Your task to perform on an android device: Show me the alarms in the clock app Image 0: 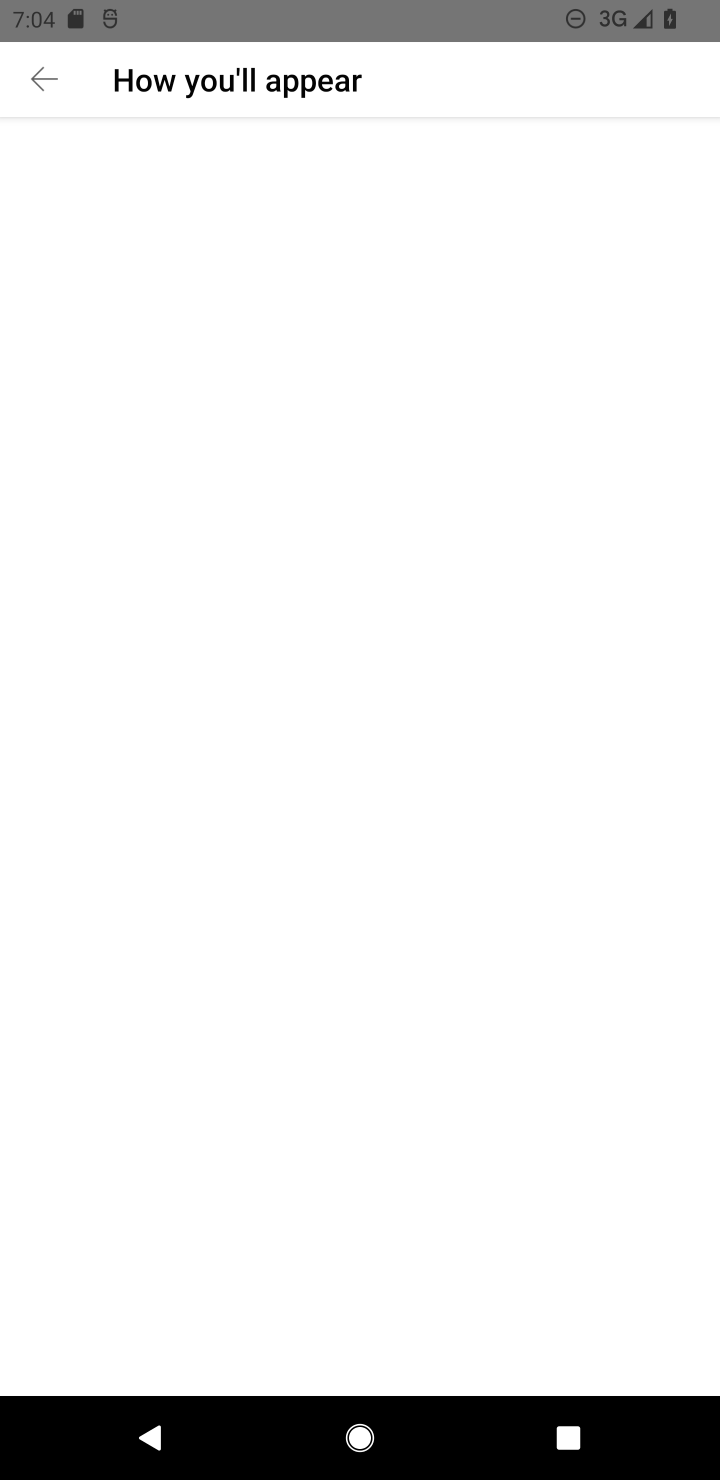
Step 0: press home button
Your task to perform on an android device: Show me the alarms in the clock app Image 1: 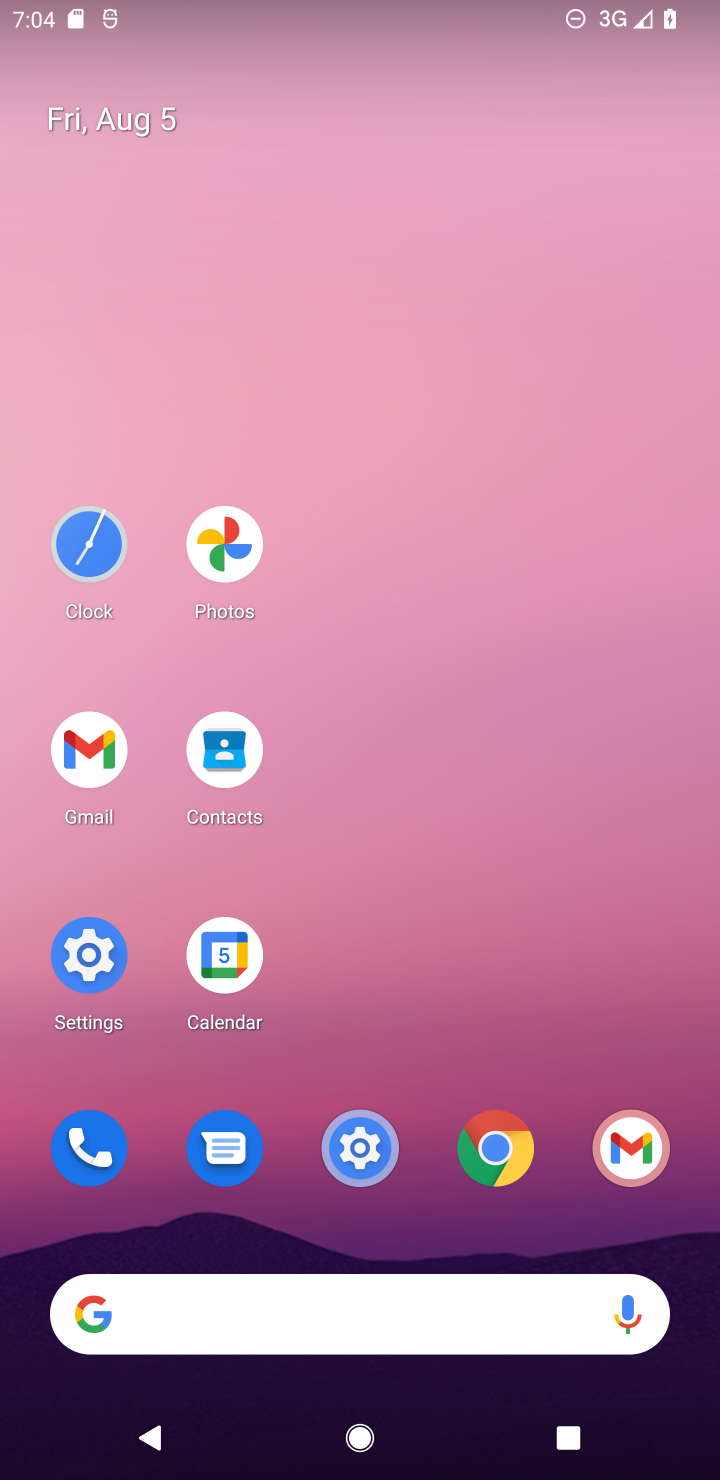
Step 1: click (50, 543)
Your task to perform on an android device: Show me the alarms in the clock app Image 2: 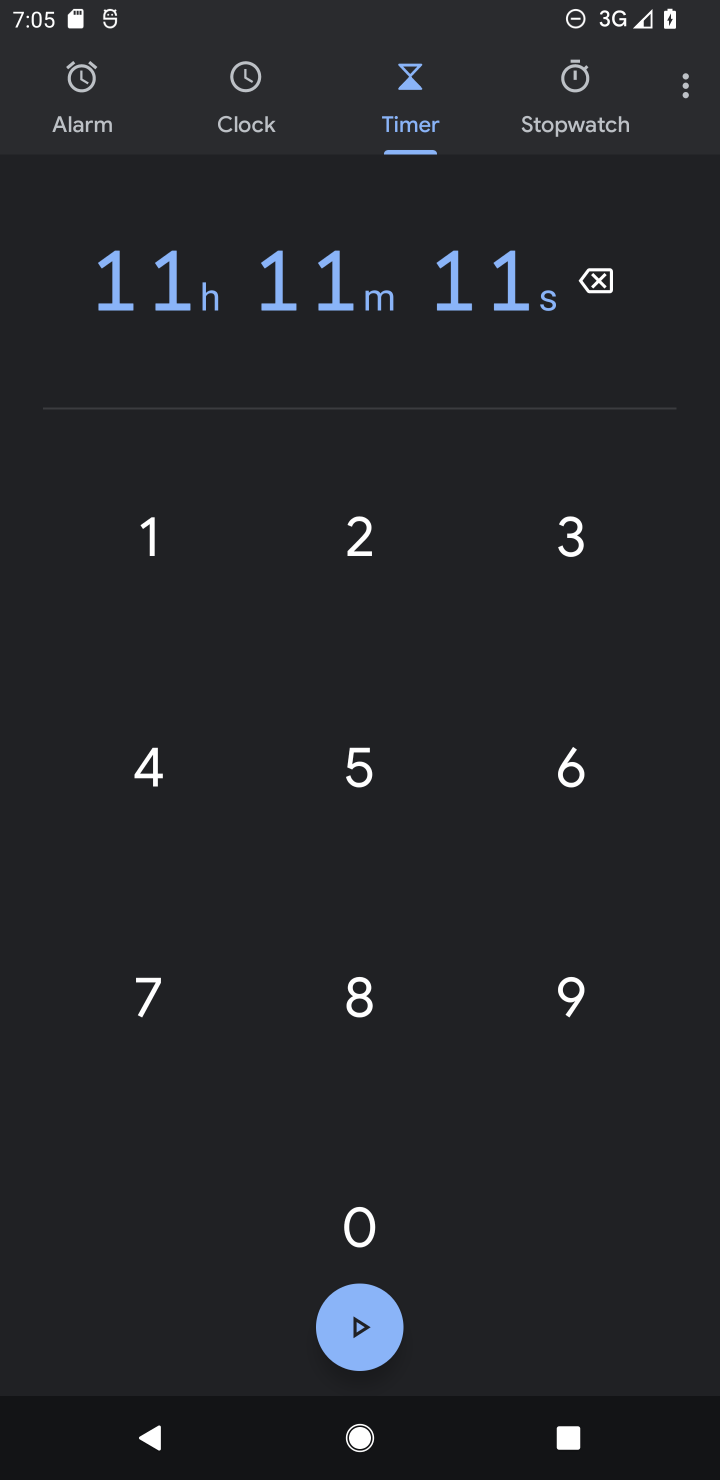
Step 2: click (82, 100)
Your task to perform on an android device: Show me the alarms in the clock app Image 3: 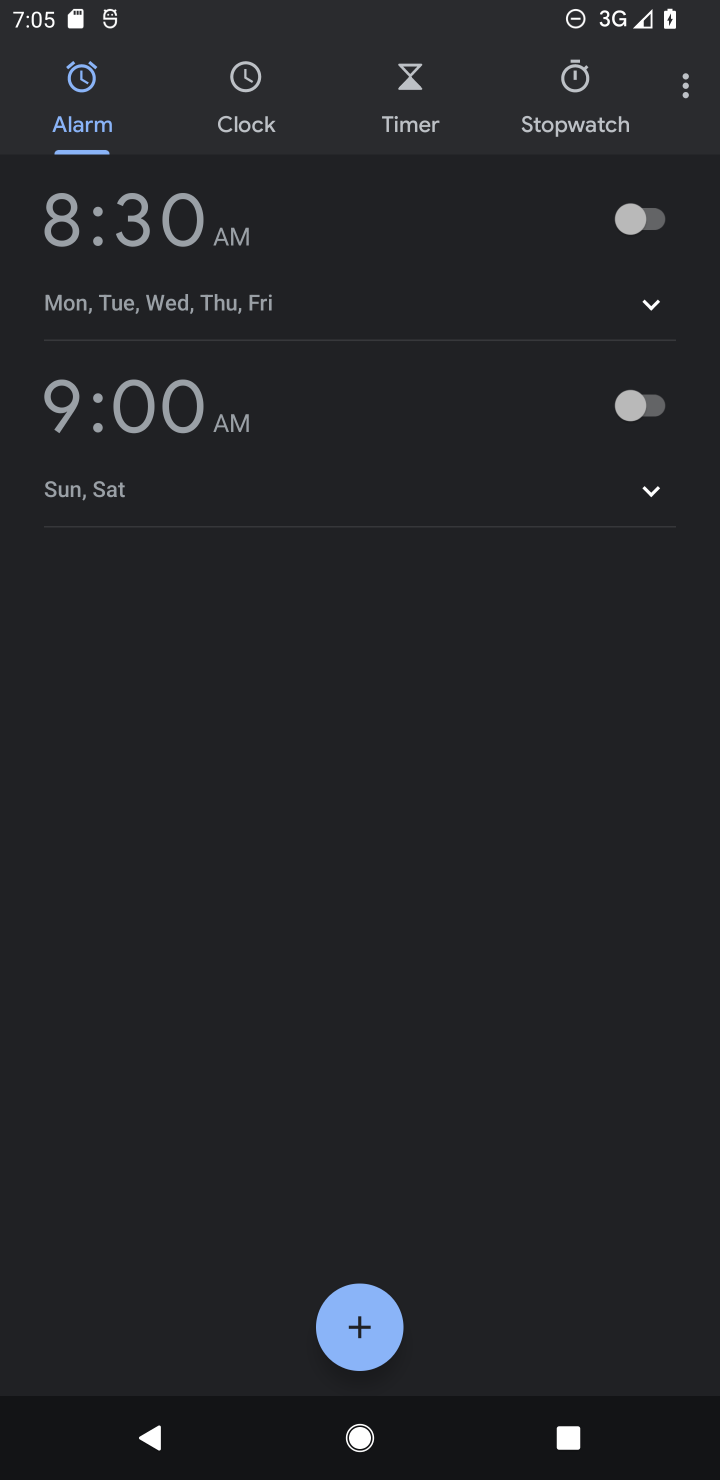
Step 3: task complete